Your task to perform on an android device: add a contact Image 0: 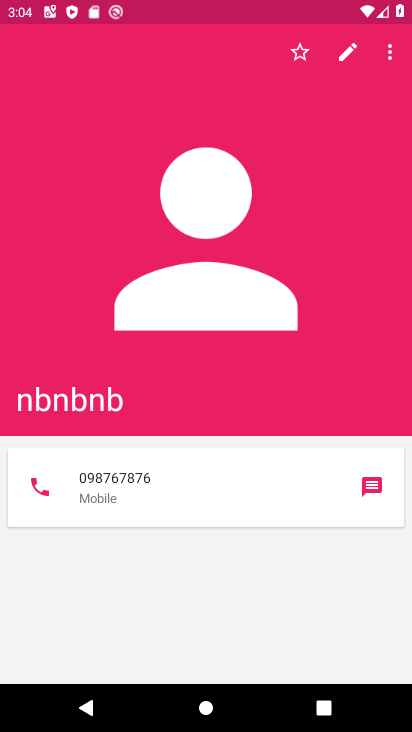
Step 0: press home button
Your task to perform on an android device: add a contact Image 1: 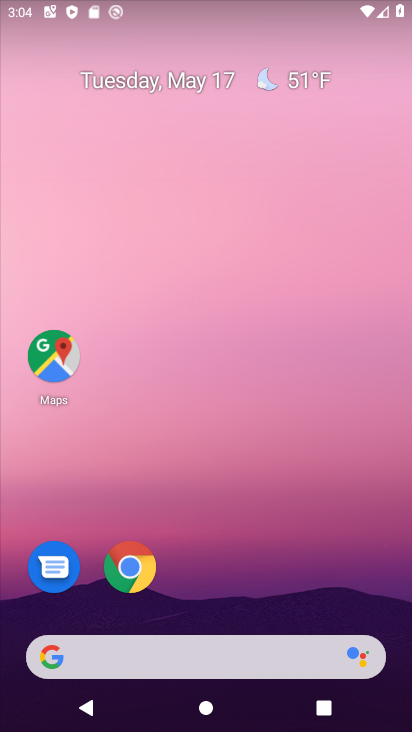
Step 1: drag from (168, 642) to (184, 166)
Your task to perform on an android device: add a contact Image 2: 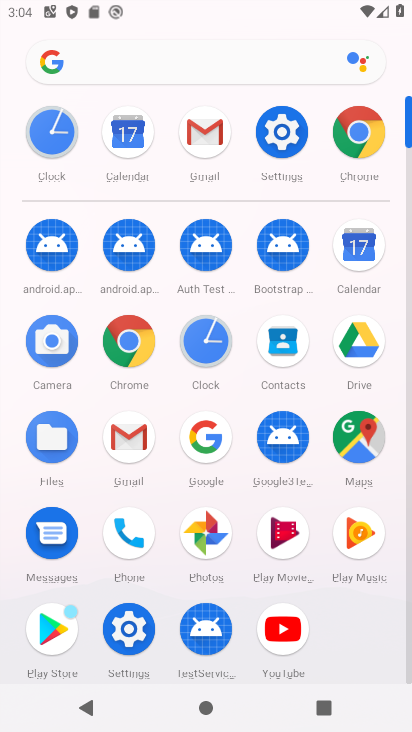
Step 2: click (287, 328)
Your task to perform on an android device: add a contact Image 3: 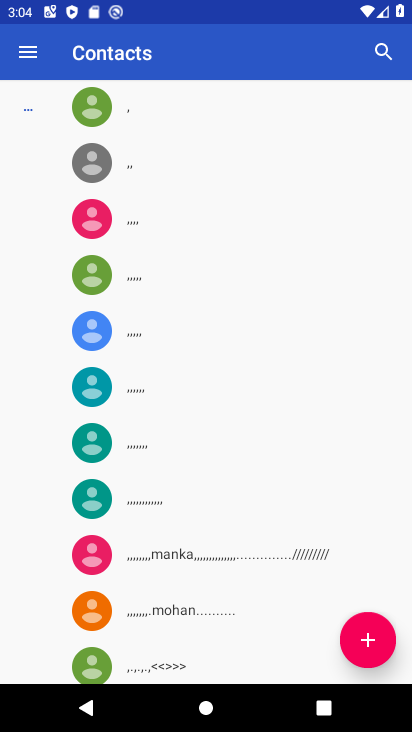
Step 3: click (361, 660)
Your task to perform on an android device: add a contact Image 4: 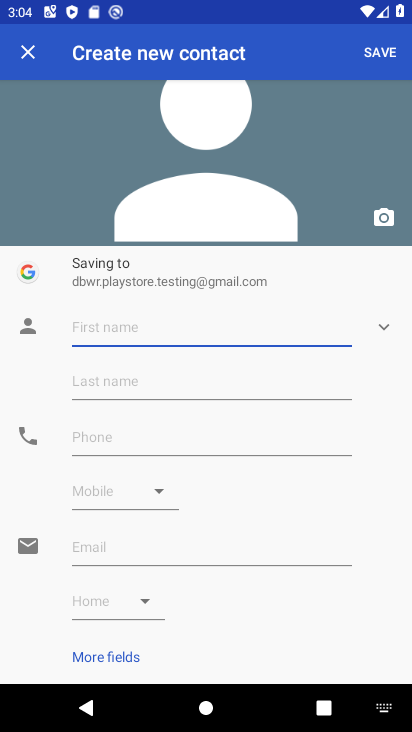
Step 4: type "xcbnvx"
Your task to perform on an android device: add a contact Image 5: 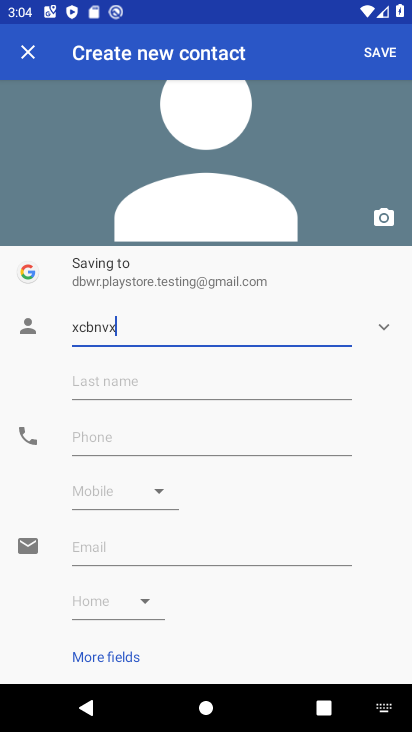
Step 5: click (208, 441)
Your task to perform on an android device: add a contact Image 6: 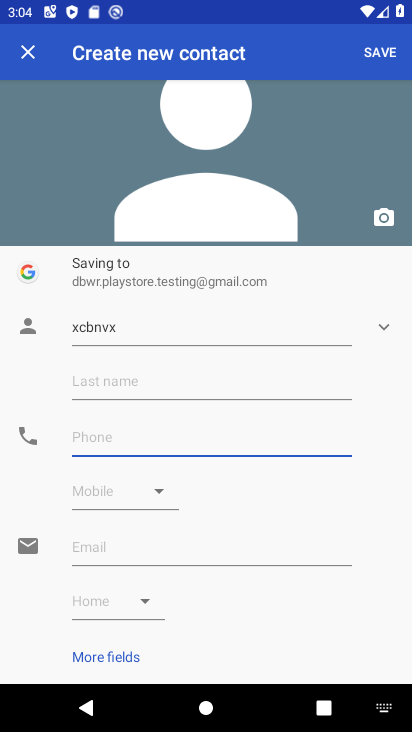
Step 6: type "9387343"
Your task to perform on an android device: add a contact Image 7: 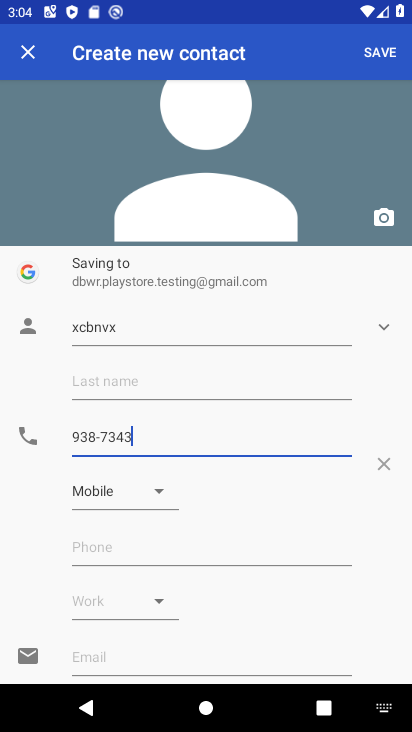
Step 7: click (376, 49)
Your task to perform on an android device: add a contact Image 8: 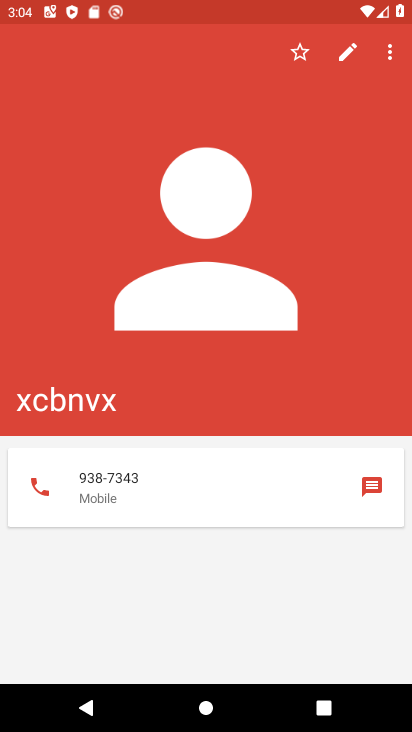
Step 8: task complete